Your task to perform on an android device: Is it going to rain tomorrow? Image 0: 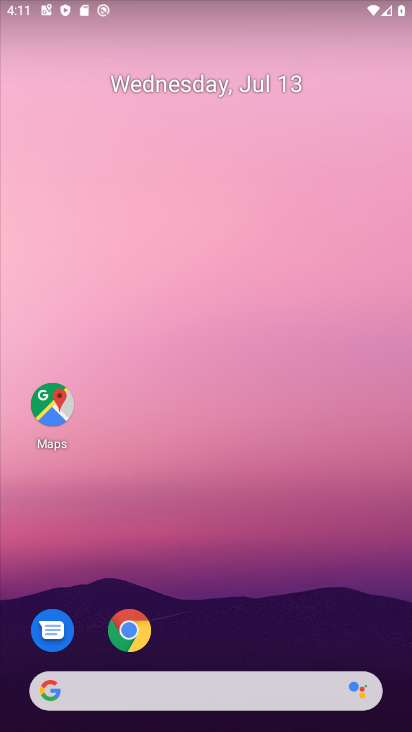
Step 0: drag from (232, 706) to (234, 34)
Your task to perform on an android device: Is it going to rain tomorrow? Image 1: 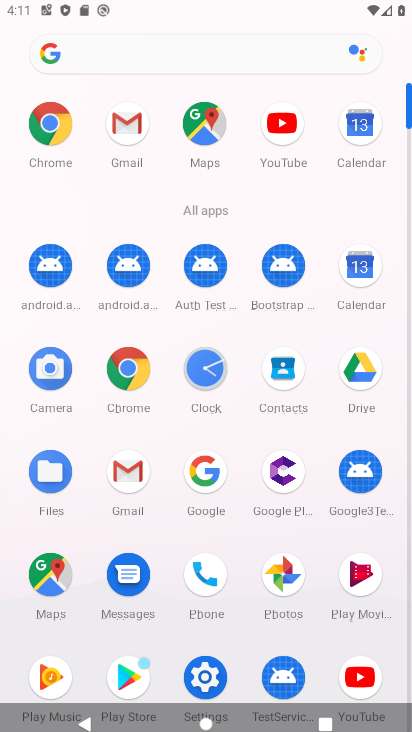
Step 1: click (131, 365)
Your task to perform on an android device: Is it going to rain tomorrow? Image 2: 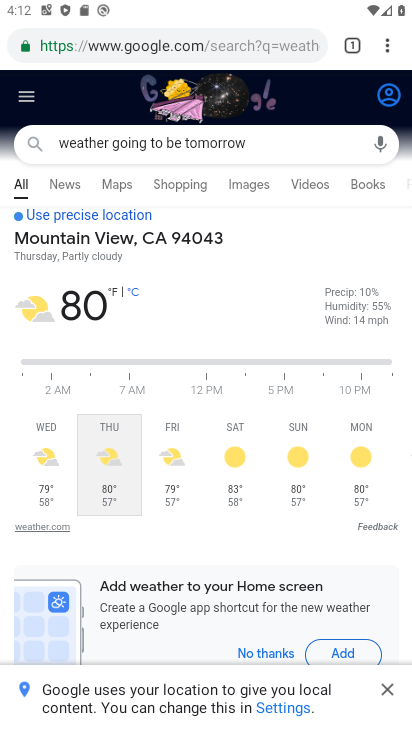
Step 2: task complete